Your task to perform on an android device: Open privacy settings Image 0: 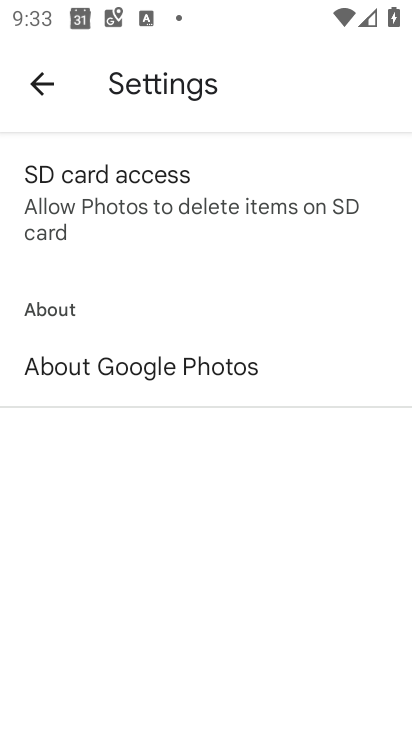
Step 0: press home button
Your task to perform on an android device: Open privacy settings Image 1: 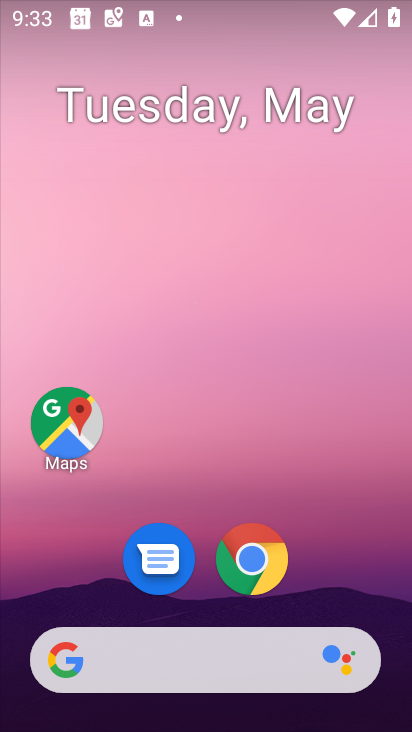
Step 1: drag from (143, 661) to (230, 165)
Your task to perform on an android device: Open privacy settings Image 2: 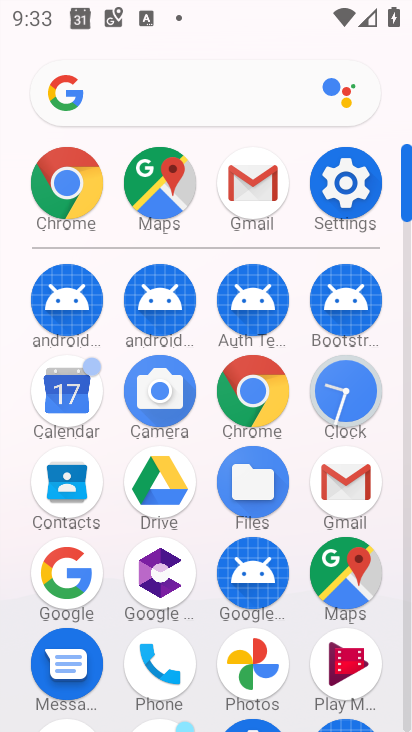
Step 2: click (324, 209)
Your task to perform on an android device: Open privacy settings Image 3: 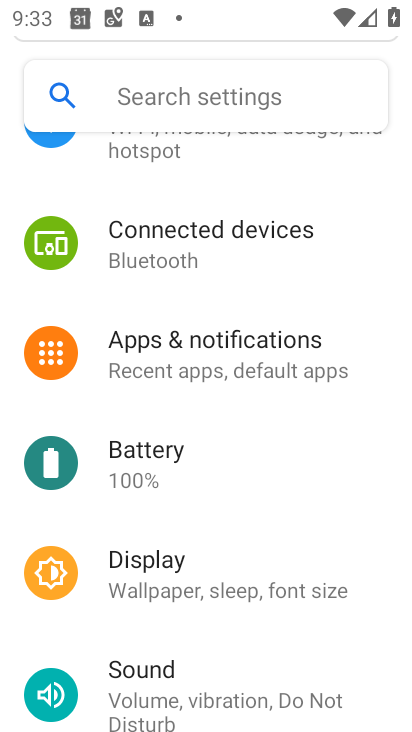
Step 3: drag from (177, 597) to (246, 5)
Your task to perform on an android device: Open privacy settings Image 4: 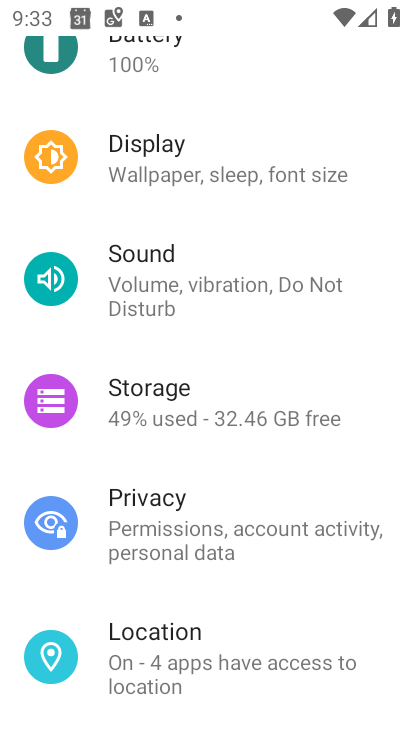
Step 4: click (196, 512)
Your task to perform on an android device: Open privacy settings Image 5: 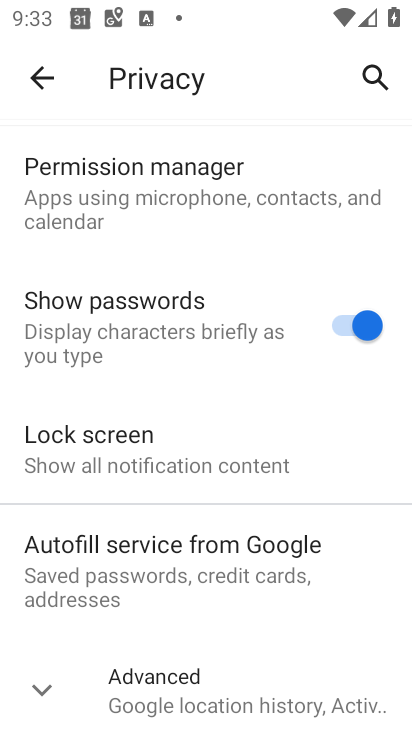
Step 5: task complete